Your task to perform on an android device: Go to sound settings Image 0: 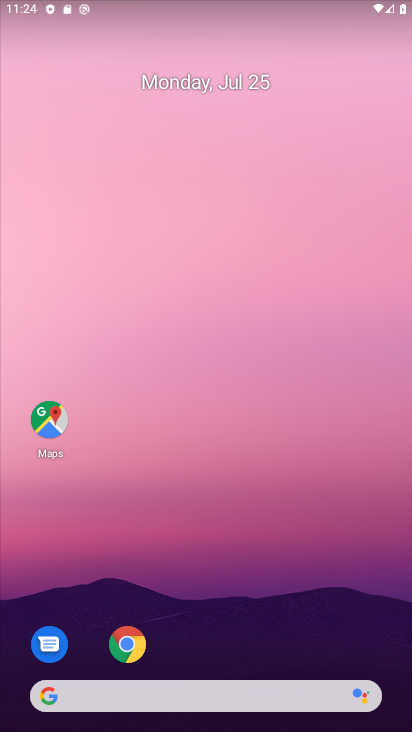
Step 0: drag from (312, 667) to (268, 31)
Your task to perform on an android device: Go to sound settings Image 1: 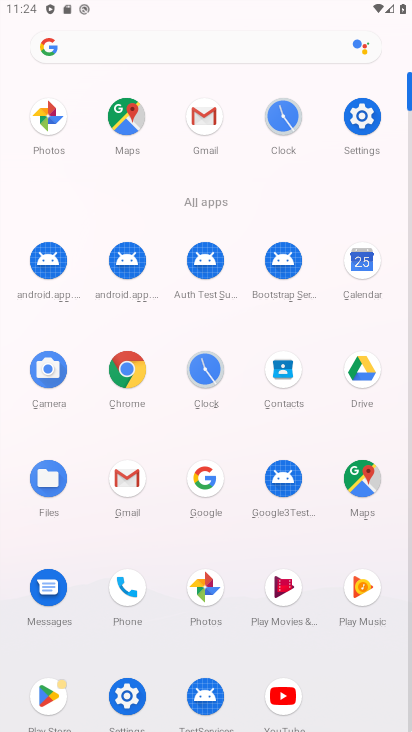
Step 1: click (144, 703)
Your task to perform on an android device: Go to sound settings Image 2: 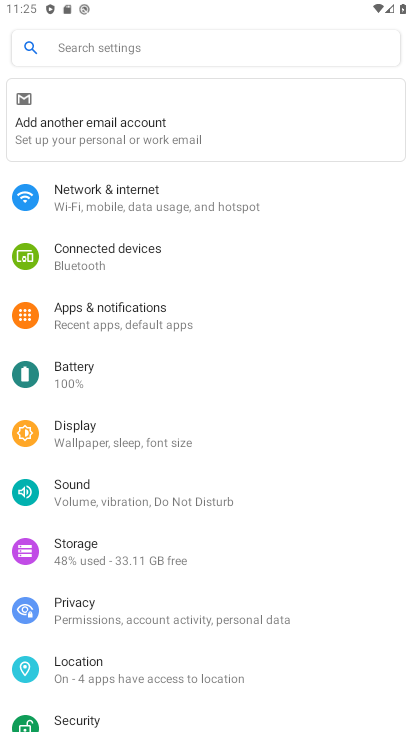
Step 2: click (91, 488)
Your task to perform on an android device: Go to sound settings Image 3: 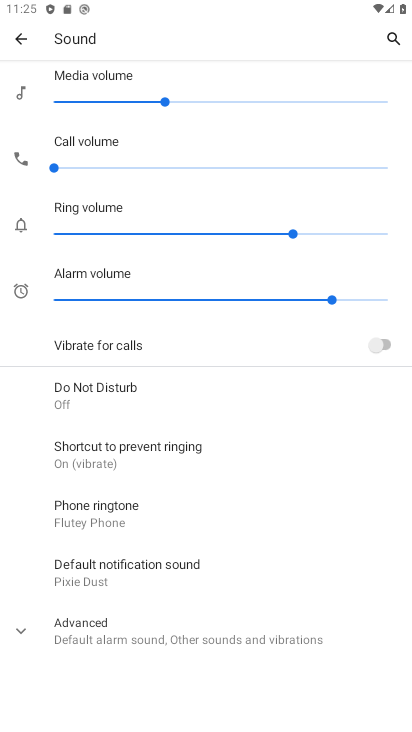
Step 3: task complete